Your task to perform on an android device: add a contact Image 0: 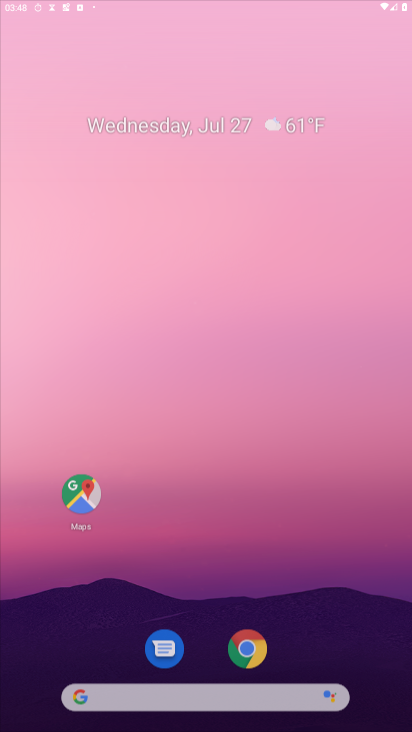
Step 0: click (348, 420)
Your task to perform on an android device: add a contact Image 1: 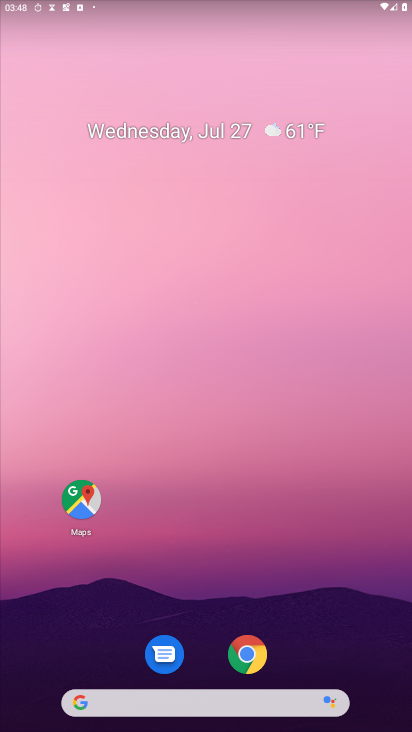
Step 1: drag from (305, 695) to (331, 54)
Your task to perform on an android device: add a contact Image 2: 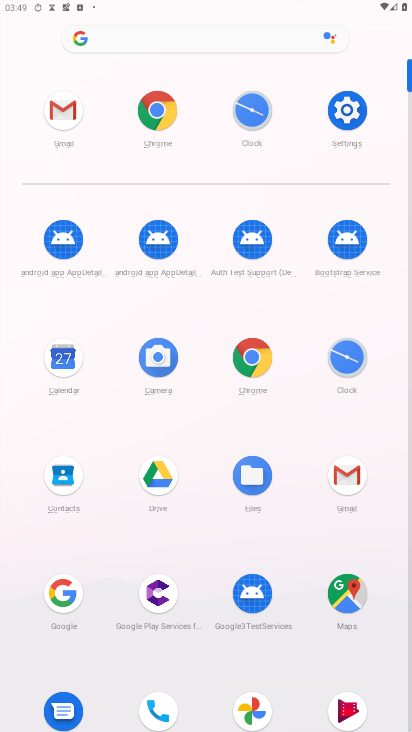
Step 2: click (61, 463)
Your task to perform on an android device: add a contact Image 3: 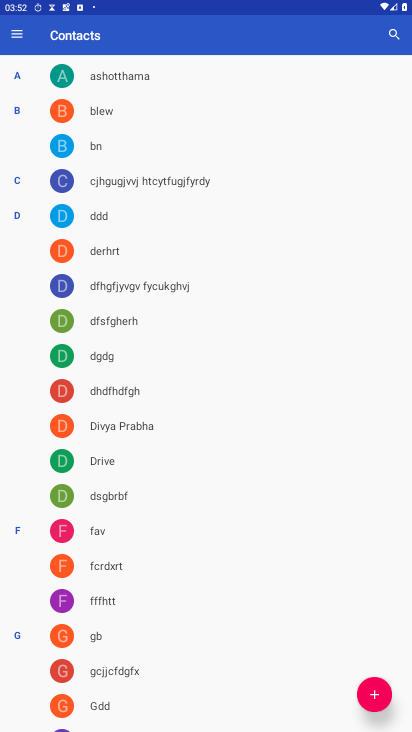
Step 3: click (370, 700)
Your task to perform on an android device: add a contact Image 4: 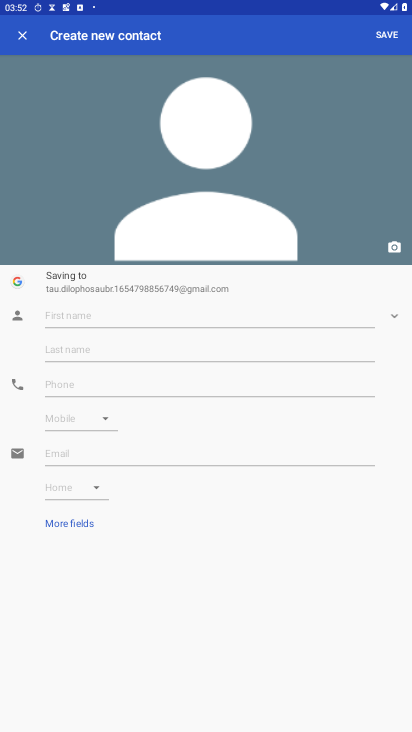
Step 4: click (180, 325)
Your task to perform on an android device: add a contact Image 5: 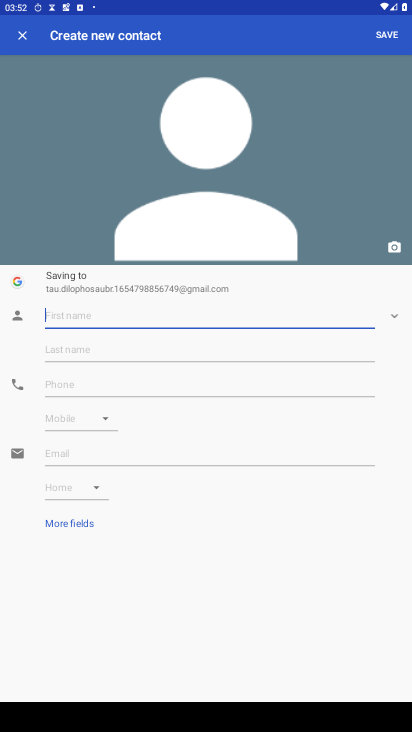
Step 5: type "mehak"
Your task to perform on an android device: add a contact Image 6: 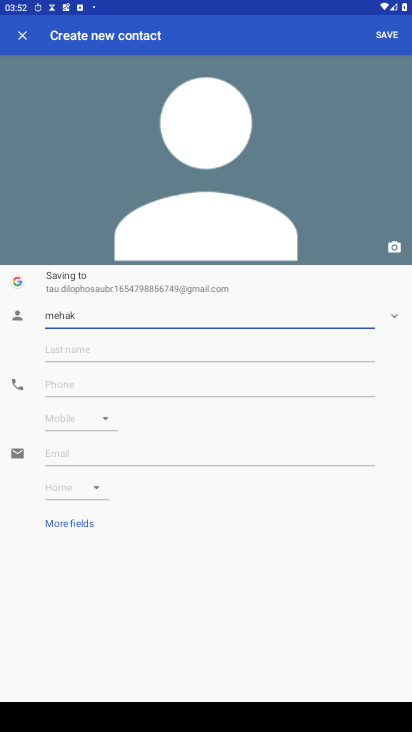
Step 6: click (339, 382)
Your task to perform on an android device: add a contact Image 7: 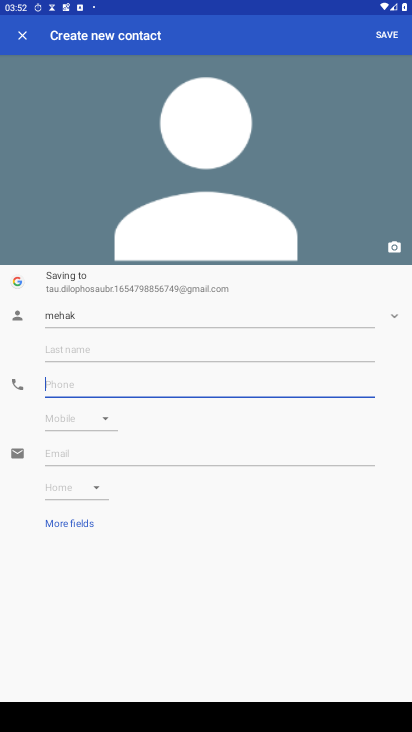
Step 7: type "87667786869"
Your task to perform on an android device: add a contact Image 8: 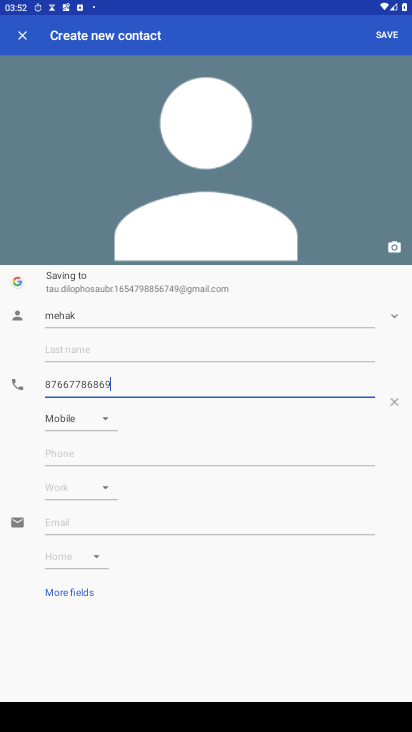
Step 8: click (382, 40)
Your task to perform on an android device: add a contact Image 9: 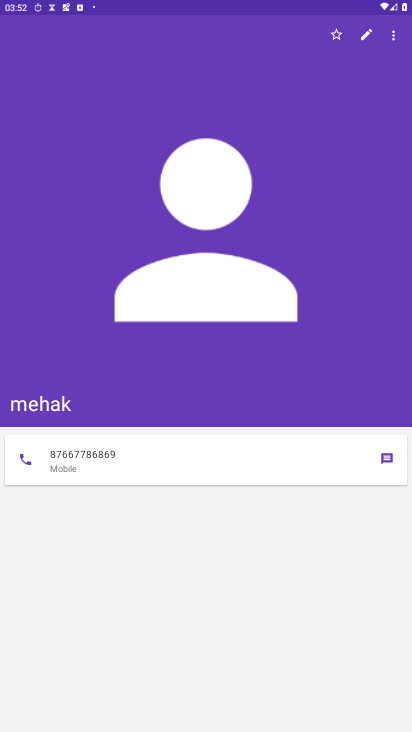
Step 9: task complete